Your task to perform on an android device: turn on the 24-hour format for clock Image 0: 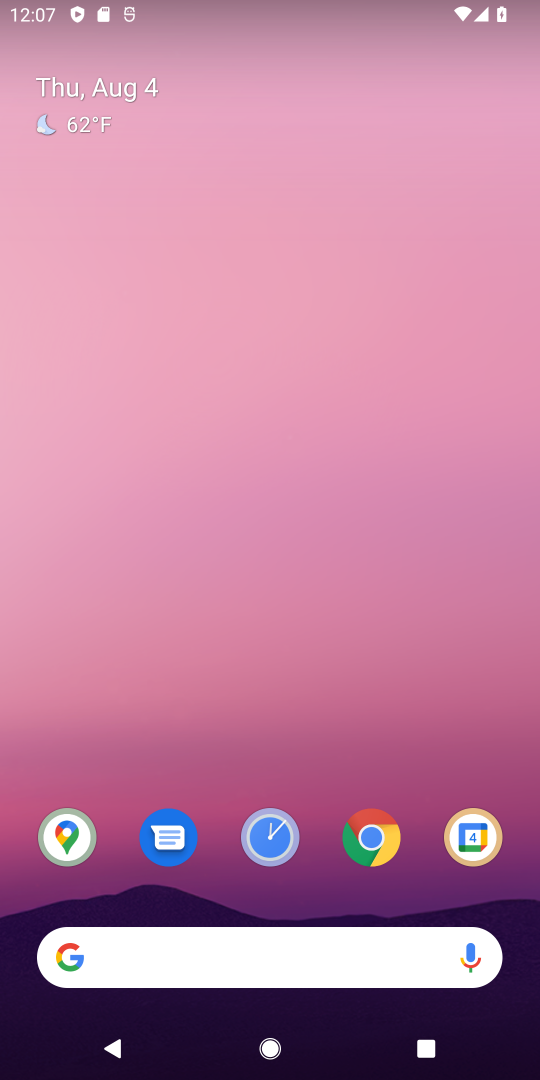
Step 0: click (263, 838)
Your task to perform on an android device: turn on the 24-hour format for clock Image 1: 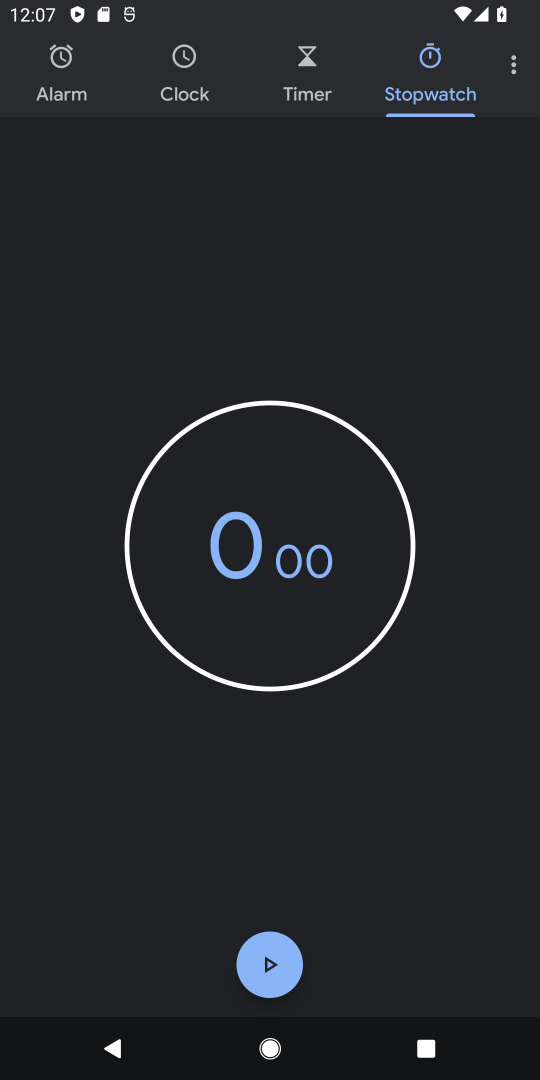
Step 1: click (524, 83)
Your task to perform on an android device: turn on the 24-hour format for clock Image 2: 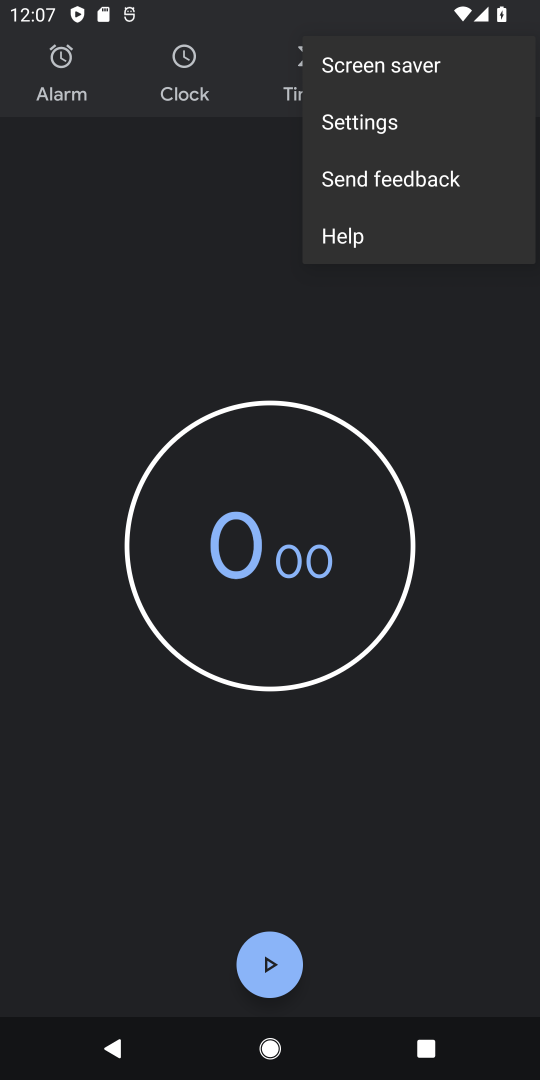
Step 2: click (437, 124)
Your task to perform on an android device: turn on the 24-hour format for clock Image 3: 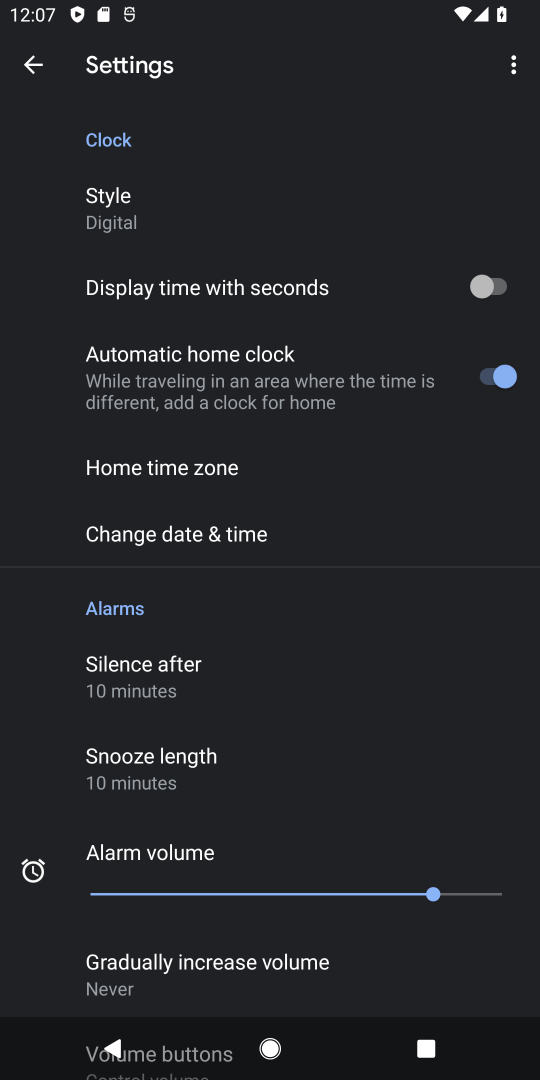
Step 3: click (214, 533)
Your task to perform on an android device: turn on the 24-hour format for clock Image 4: 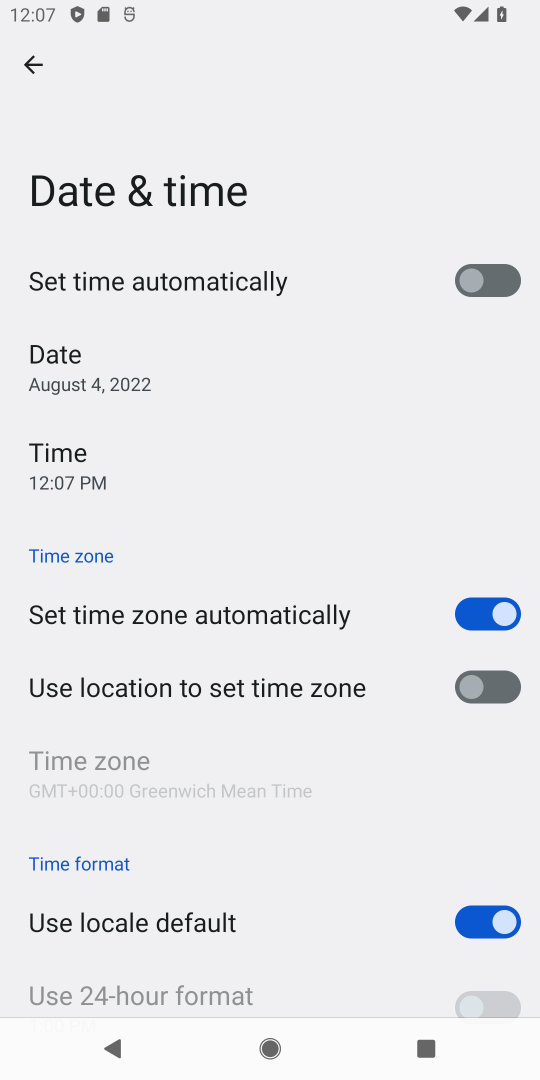
Step 4: drag from (250, 845) to (258, 256)
Your task to perform on an android device: turn on the 24-hour format for clock Image 5: 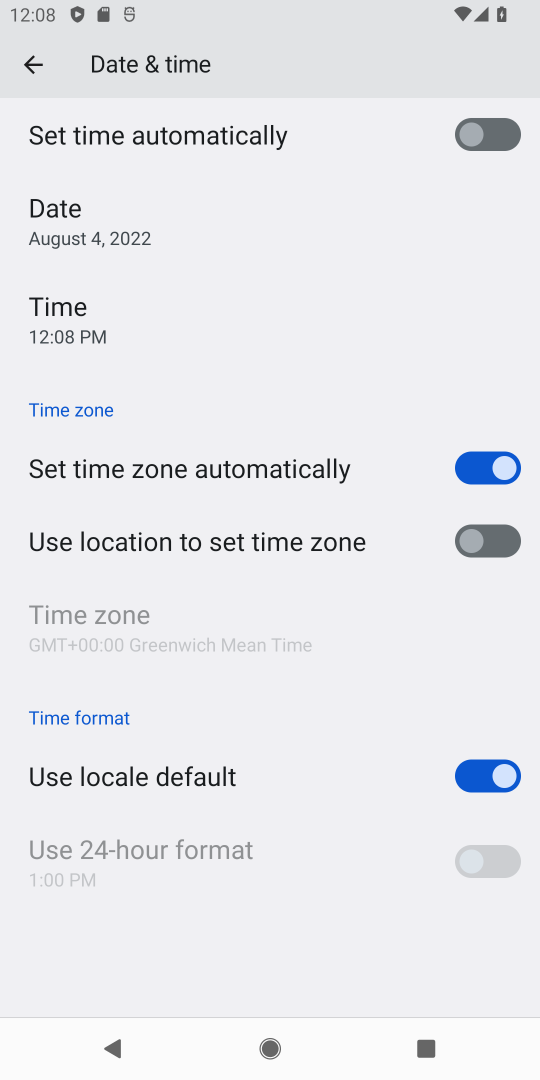
Step 5: click (500, 781)
Your task to perform on an android device: turn on the 24-hour format for clock Image 6: 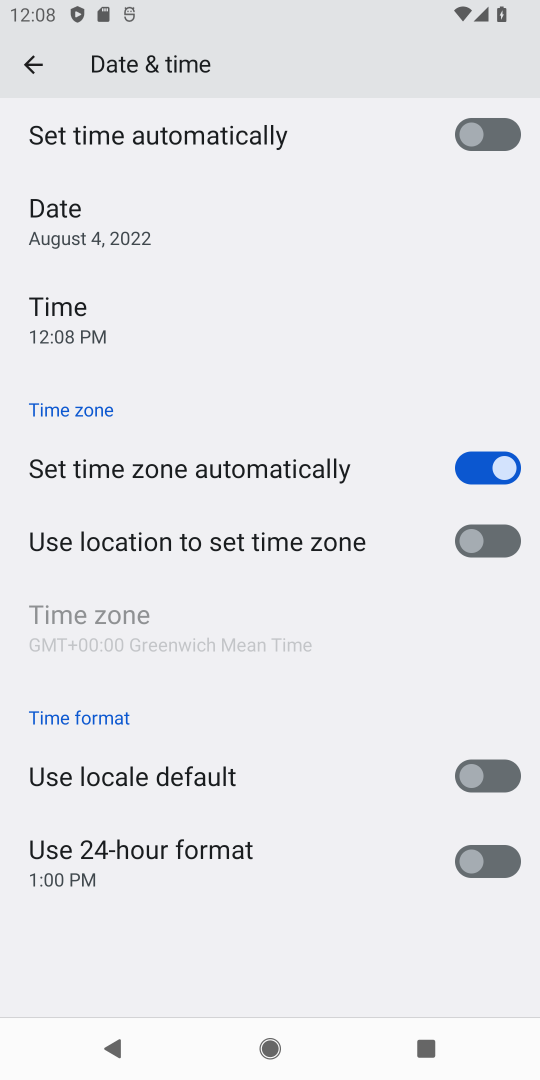
Step 6: click (500, 858)
Your task to perform on an android device: turn on the 24-hour format for clock Image 7: 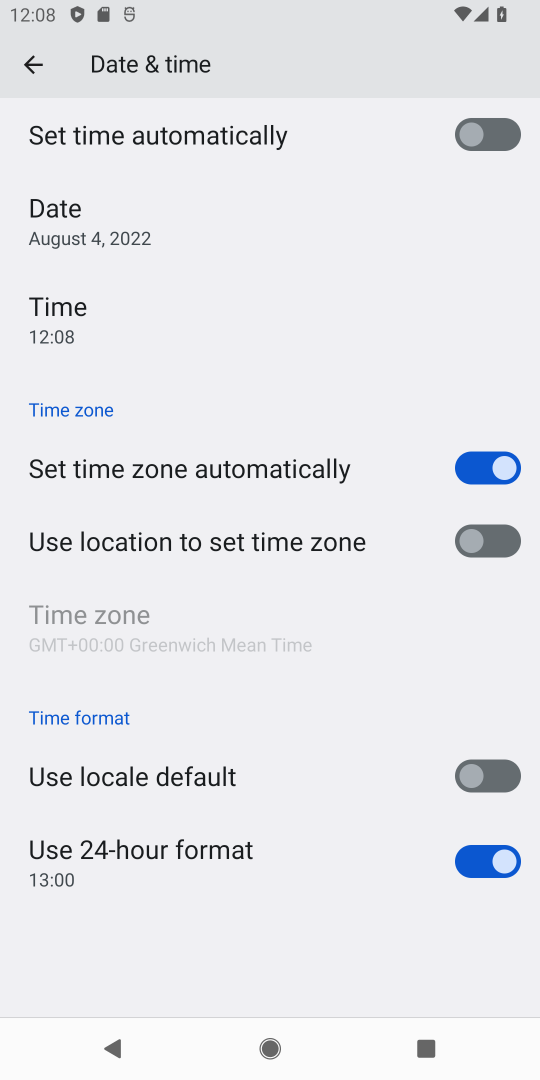
Step 7: task complete